Your task to perform on an android device: Open the calendar app, open the side menu, and click the "Day" option Image 0: 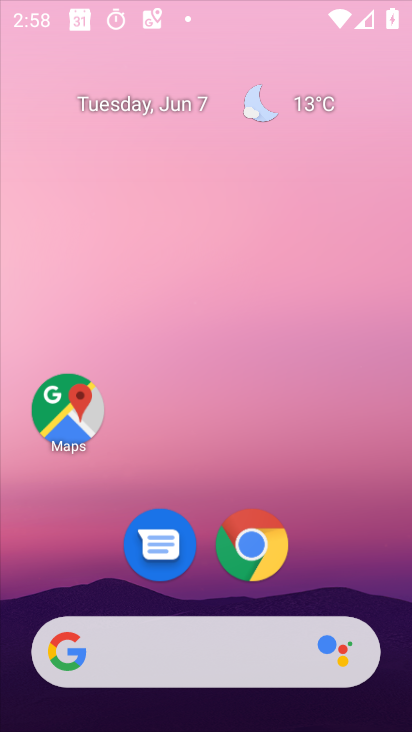
Step 0: press home button
Your task to perform on an android device: Open the calendar app, open the side menu, and click the "Day" option Image 1: 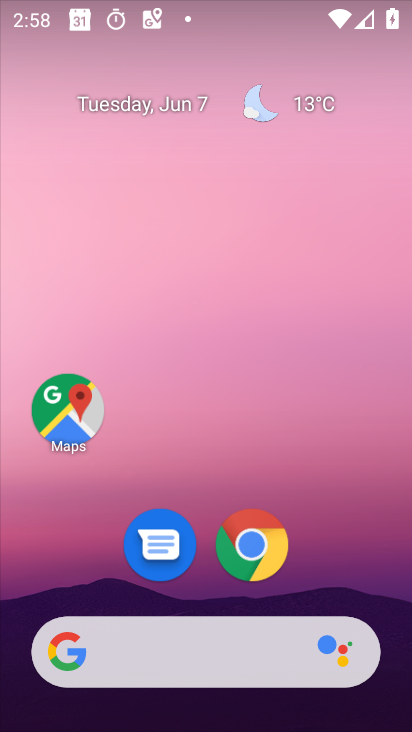
Step 1: click (163, 101)
Your task to perform on an android device: Open the calendar app, open the side menu, and click the "Day" option Image 2: 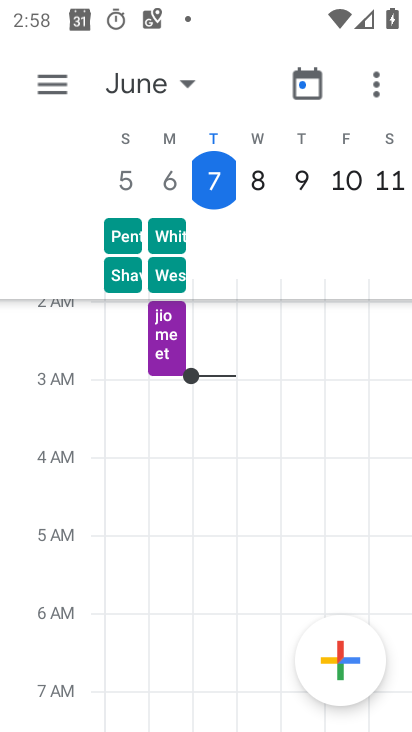
Step 2: click (54, 82)
Your task to perform on an android device: Open the calendar app, open the side menu, and click the "Day" option Image 3: 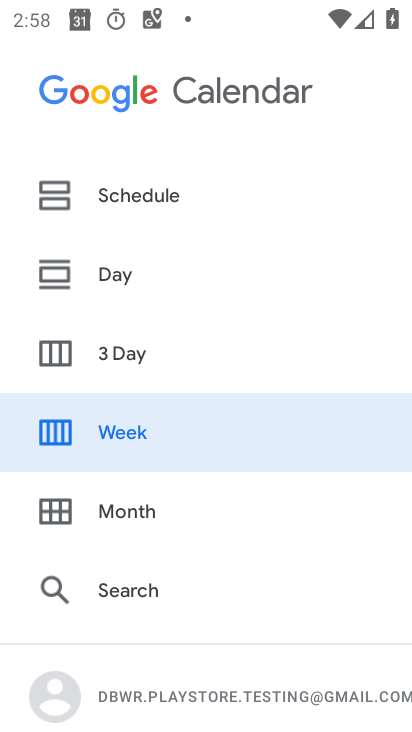
Step 3: click (112, 247)
Your task to perform on an android device: Open the calendar app, open the side menu, and click the "Day" option Image 4: 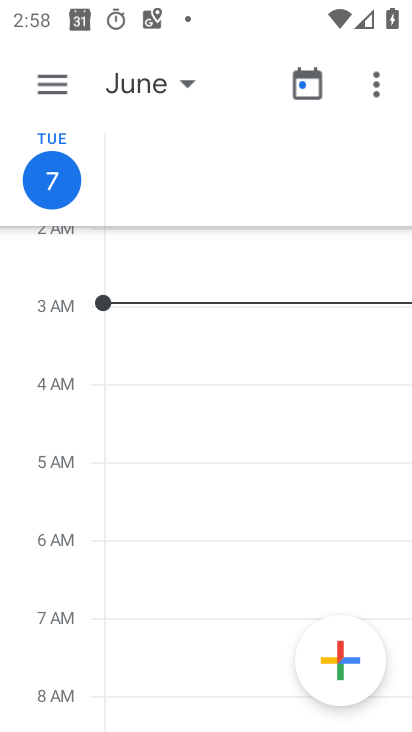
Step 4: task complete